Your task to perform on an android device: change keyboard looks Image 0: 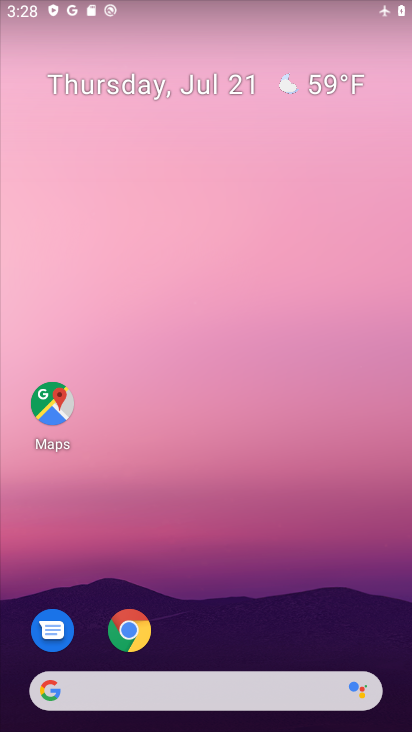
Step 0: drag from (244, 462) to (235, 247)
Your task to perform on an android device: change keyboard looks Image 1: 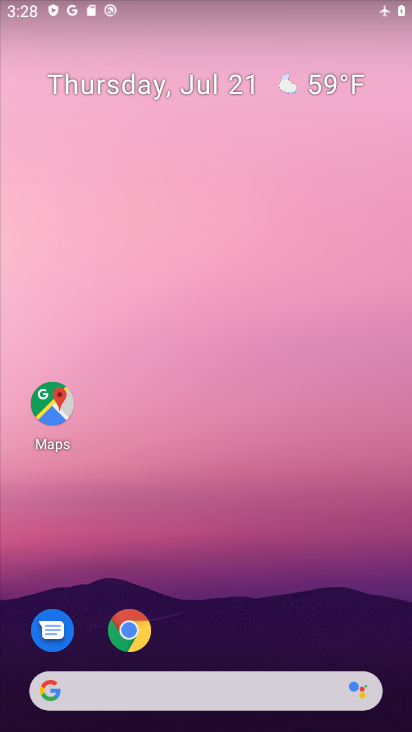
Step 1: drag from (238, 532) to (192, 180)
Your task to perform on an android device: change keyboard looks Image 2: 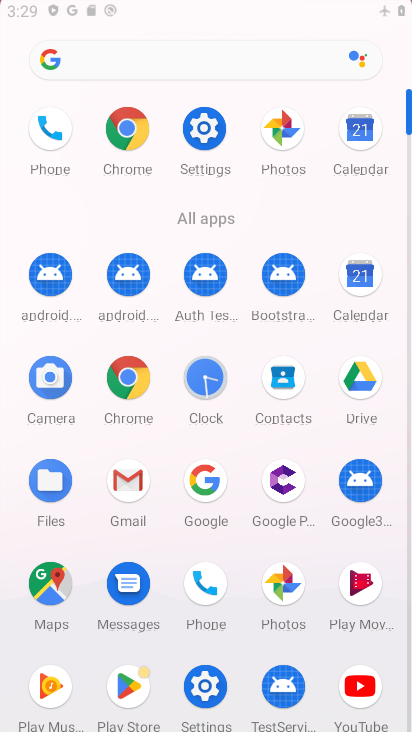
Step 2: drag from (247, 555) to (196, 155)
Your task to perform on an android device: change keyboard looks Image 3: 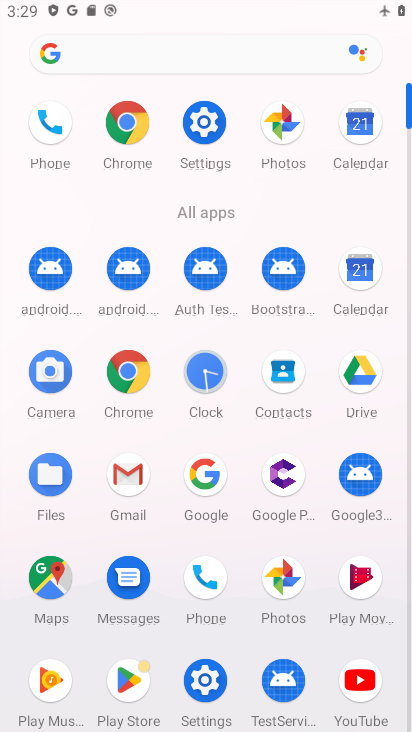
Step 3: click (194, 127)
Your task to perform on an android device: change keyboard looks Image 4: 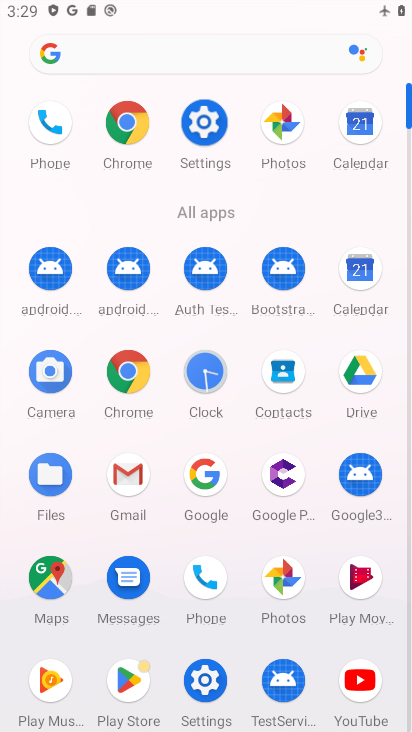
Step 4: click (197, 131)
Your task to perform on an android device: change keyboard looks Image 5: 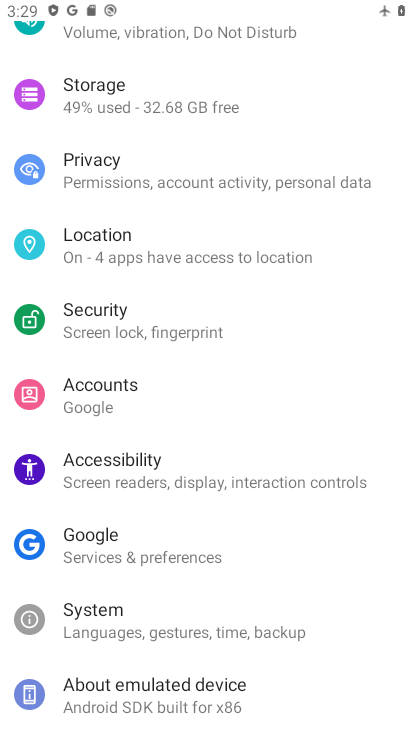
Step 5: click (109, 611)
Your task to perform on an android device: change keyboard looks Image 6: 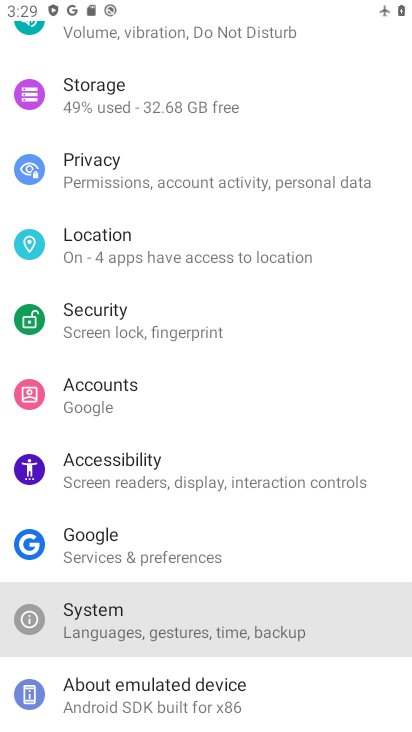
Step 6: click (102, 611)
Your task to perform on an android device: change keyboard looks Image 7: 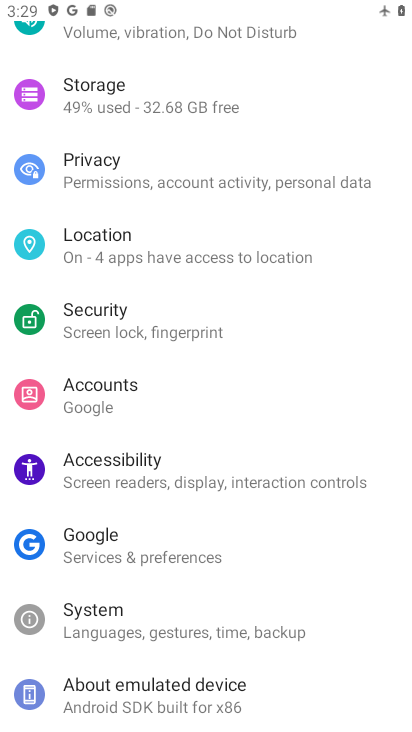
Step 7: click (99, 609)
Your task to perform on an android device: change keyboard looks Image 8: 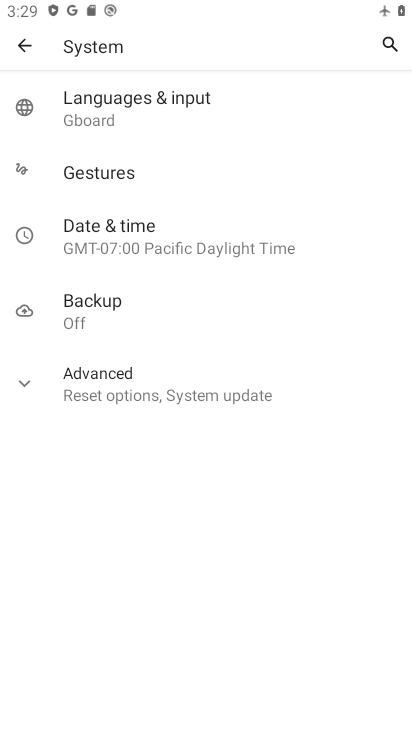
Step 8: click (92, 117)
Your task to perform on an android device: change keyboard looks Image 9: 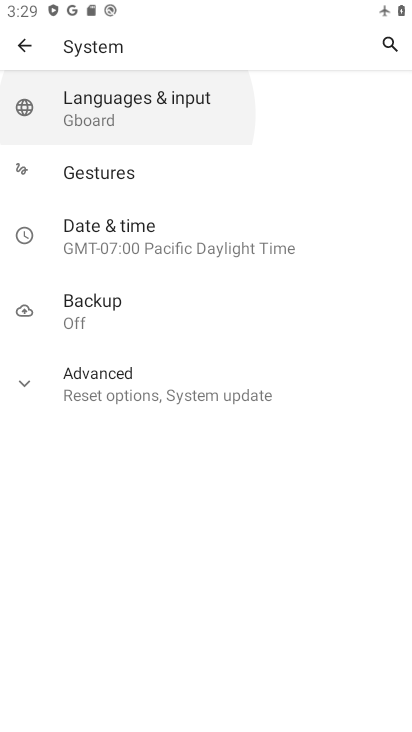
Step 9: click (96, 112)
Your task to perform on an android device: change keyboard looks Image 10: 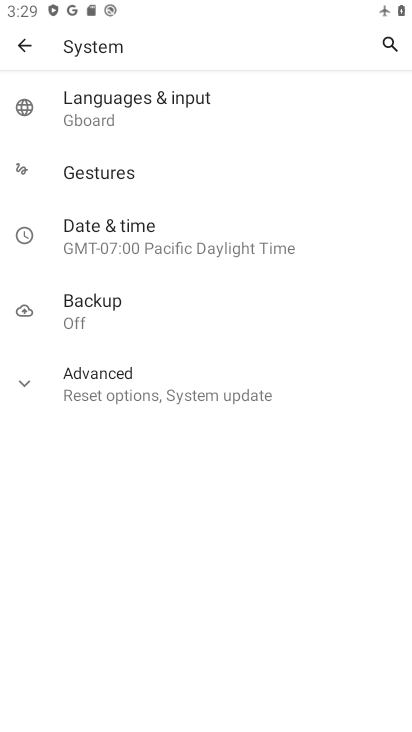
Step 10: click (96, 111)
Your task to perform on an android device: change keyboard looks Image 11: 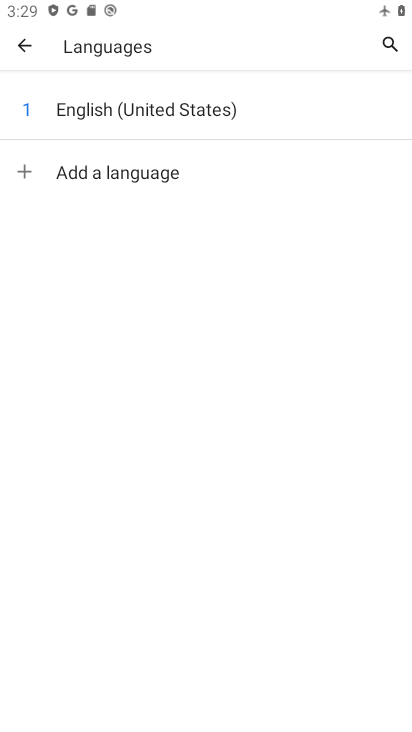
Step 11: click (17, 44)
Your task to perform on an android device: change keyboard looks Image 12: 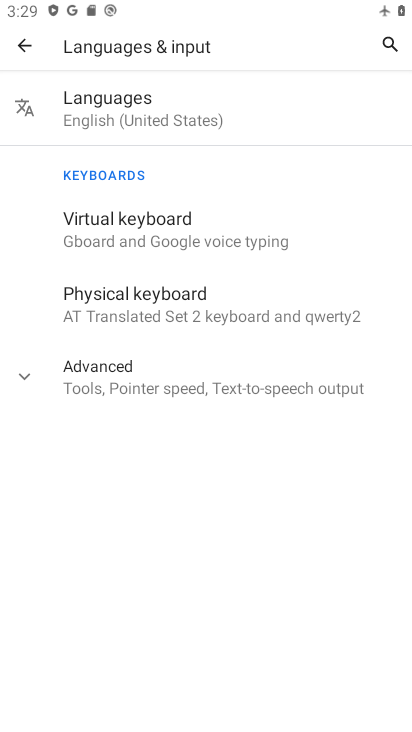
Step 12: click (112, 231)
Your task to perform on an android device: change keyboard looks Image 13: 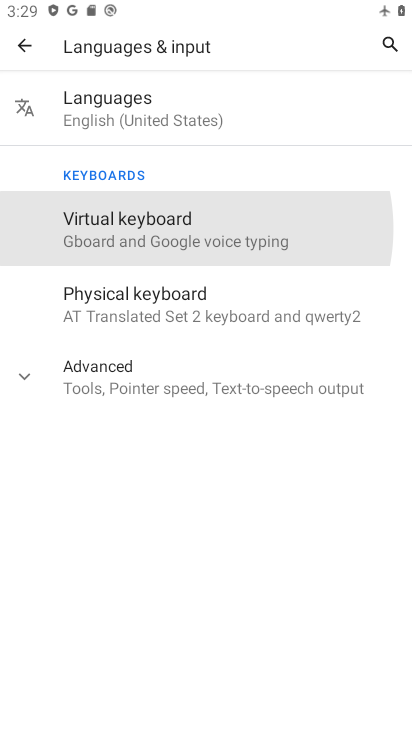
Step 13: click (116, 230)
Your task to perform on an android device: change keyboard looks Image 14: 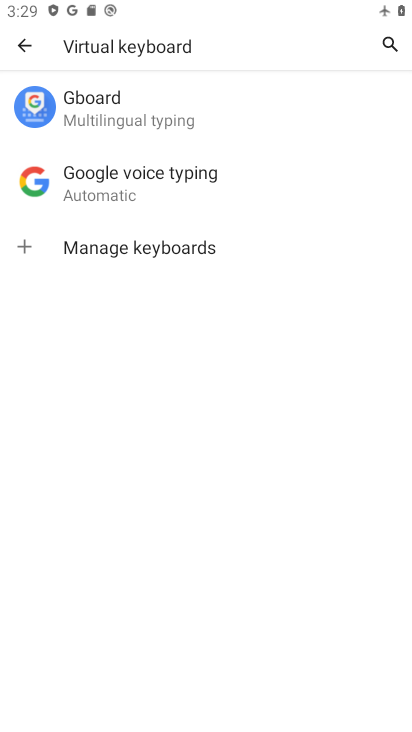
Step 14: click (91, 110)
Your task to perform on an android device: change keyboard looks Image 15: 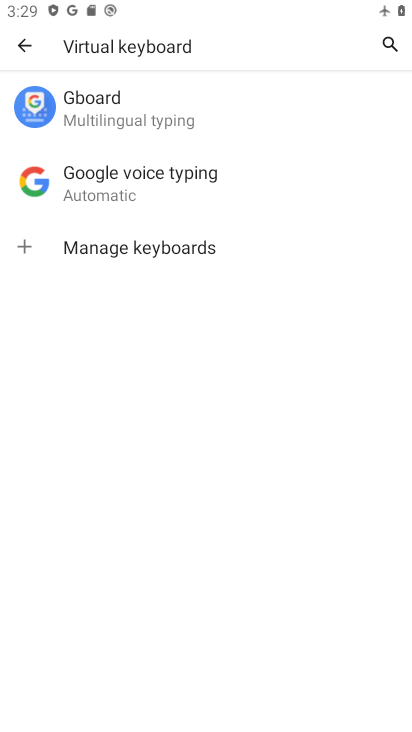
Step 15: click (94, 108)
Your task to perform on an android device: change keyboard looks Image 16: 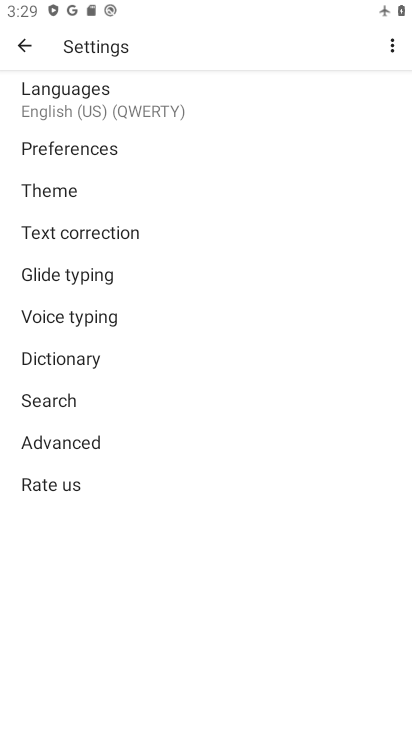
Step 16: click (50, 184)
Your task to perform on an android device: change keyboard looks Image 17: 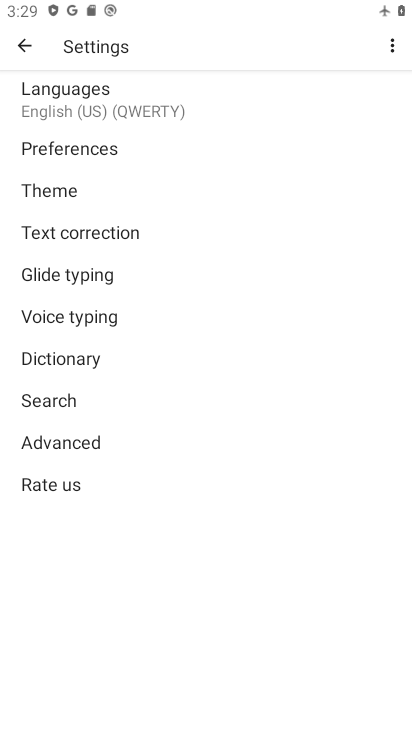
Step 17: click (50, 184)
Your task to perform on an android device: change keyboard looks Image 18: 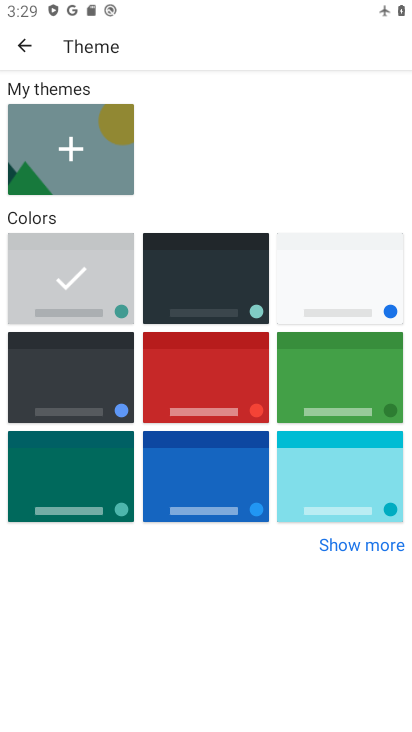
Step 18: click (69, 352)
Your task to perform on an android device: change keyboard looks Image 19: 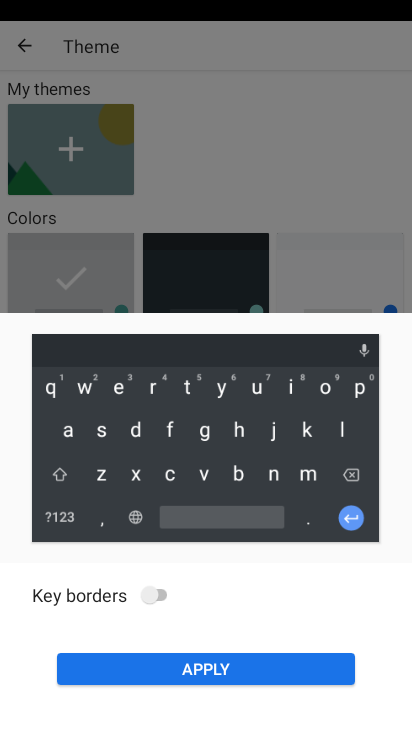
Step 19: click (185, 663)
Your task to perform on an android device: change keyboard looks Image 20: 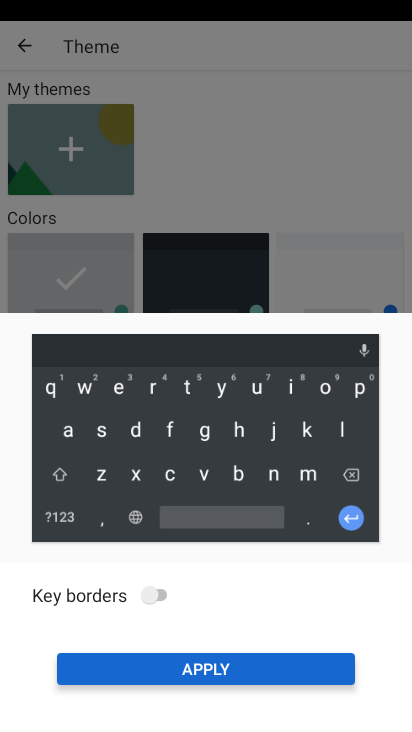
Step 20: click (186, 662)
Your task to perform on an android device: change keyboard looks Image 21: 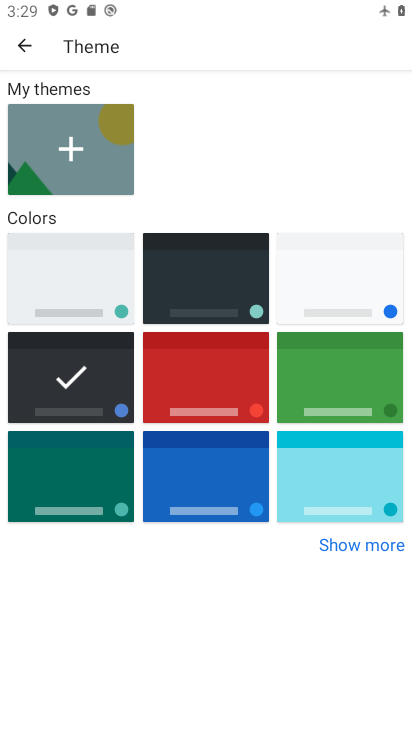
Step 21: task complete